Your task to perform on an android device: add a contact in the contacts app Image 0: 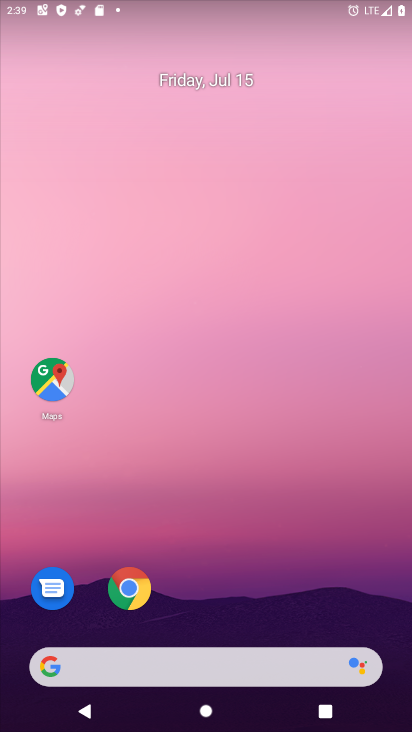
Step 0: drag from (221, 674) to (237, 110)
Your task to perform on an android device: add a contact in the contacts app Image 1: 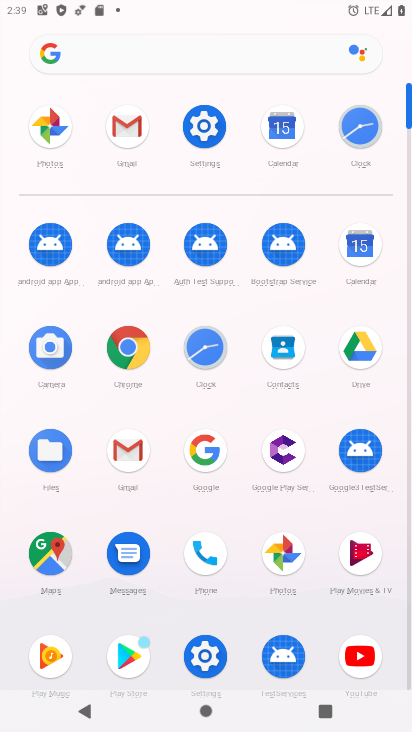
Step 1: click (282, 350)
Your task to perform on an android device: add a contact in the contacts app Image 2: 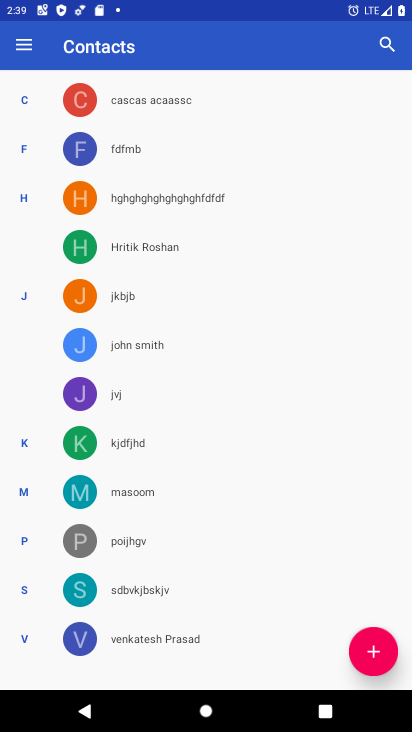
Step 2: click (374, 650)
Your task to perform on an android device: add a contact in the contacts app Image 3: 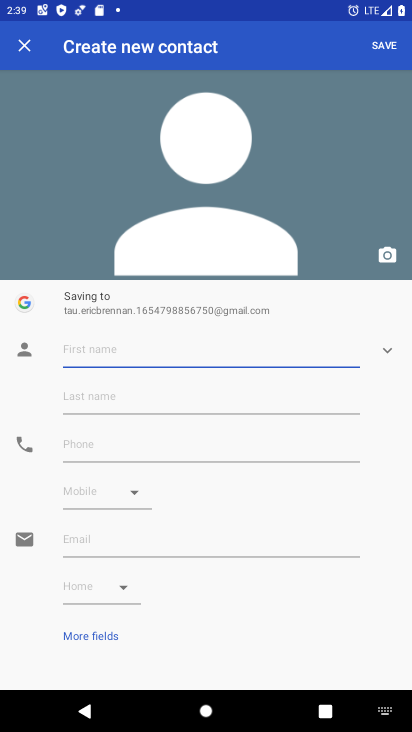
Step 3: click (251, 346)
Your task to perform on an android device: add a contact in the contacts app Image 4: 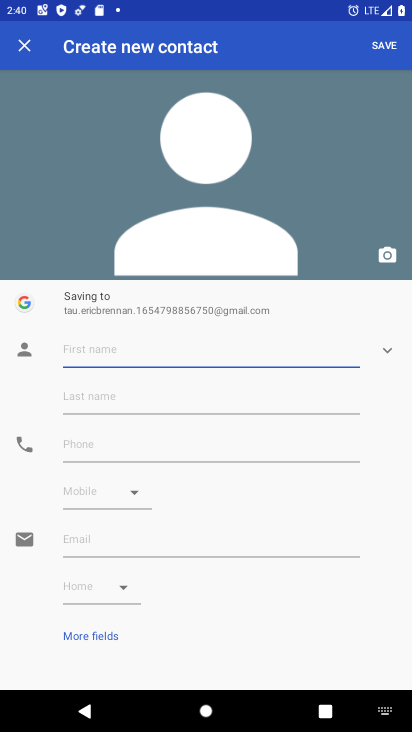
Step 4: type "Simran"
Your task to perform on an android device: add a contact in the contacts app Image 5: 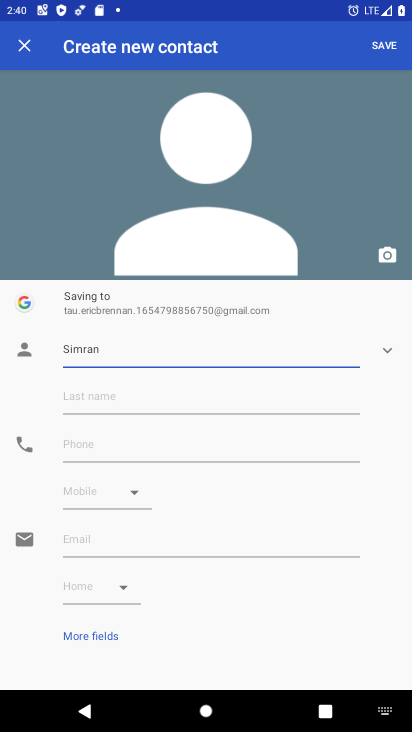
Step 5: click (205, 396)
Your task to perform on an android device: add a contact in the contacts app Image 6: 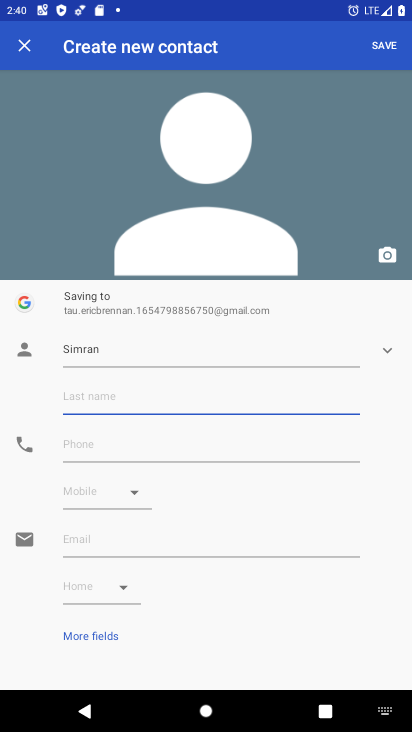
Step 6: type "Malohtra"
Your task to perform on an android device: add a contact in the contacts app Image 7: 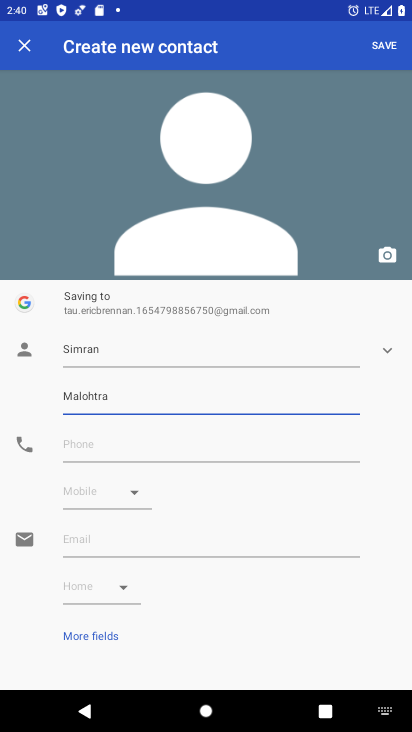
Step 7: click (167, 446)
Your task to perform on an android device: add a contact in the contacts app Image 8: 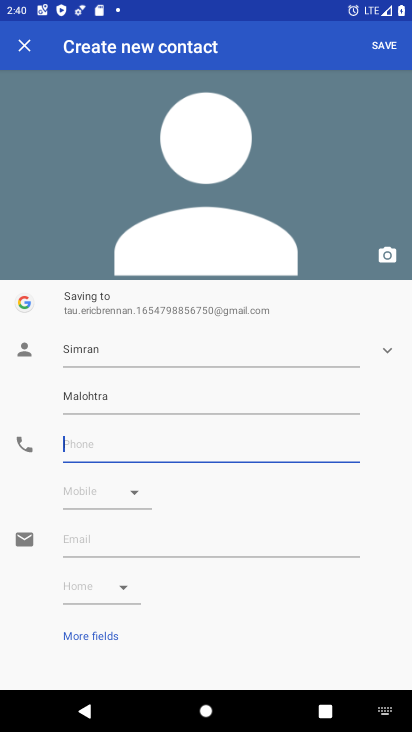
Step 8: type "09977553311"
Your task to perform on an android device: add a contact in the contacts app Image 9: 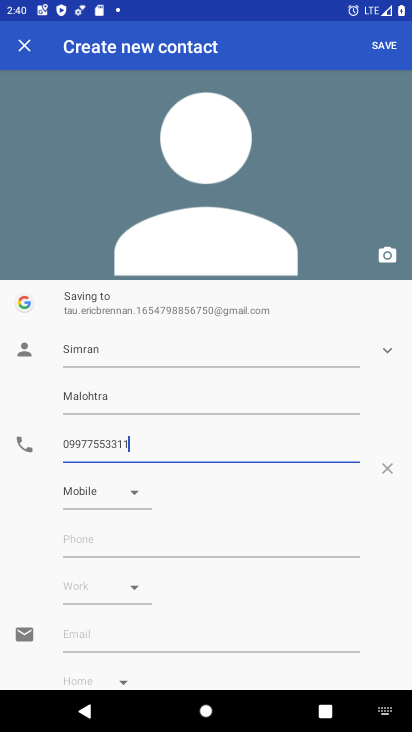
Step 9: click (382, 42)
Your task to perform on an android device: add a contact in the contacts app Image 10: 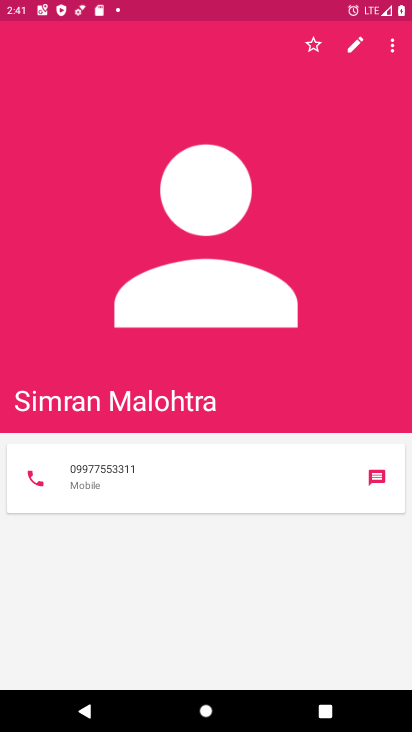
Step 10: task complete